Your task to perform on an android device: Open the calendar app, open the side menu, and click the "Day" option Image 0: 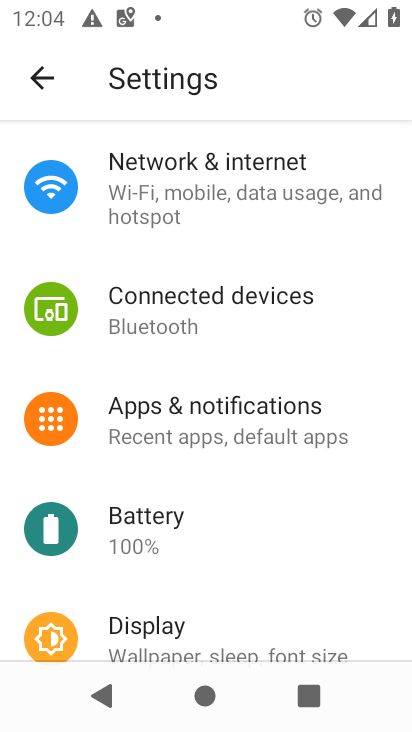
Step 0: press back button
Your task to perform on an android device: Open the calendar app, open the side menu, and click the "Day" option Image 1: 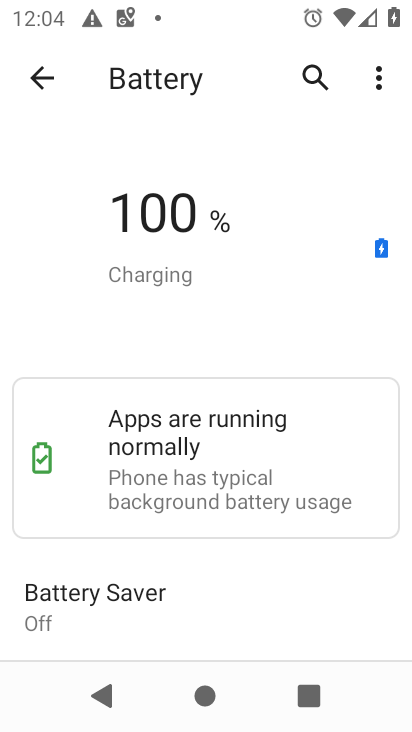
Step 1: press back button
Your task to perform on an android device: Open the calendar app, open the side menu, and click the "Day" option Image 2: 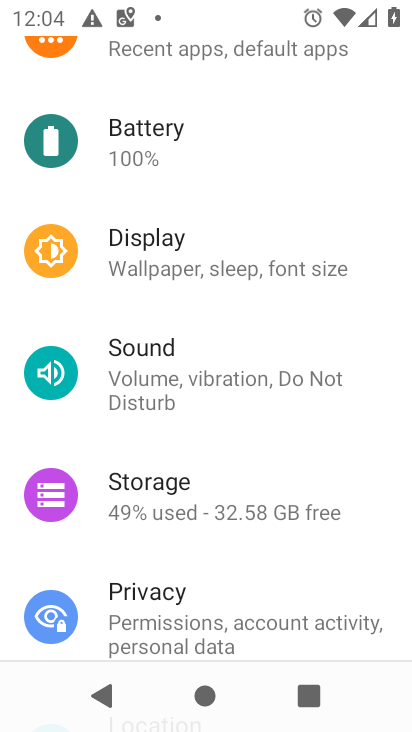
Step 2: press back button
Your task to perform on an android device: Open the calendar app, open the side menu, and click the "Day" option Image 3: 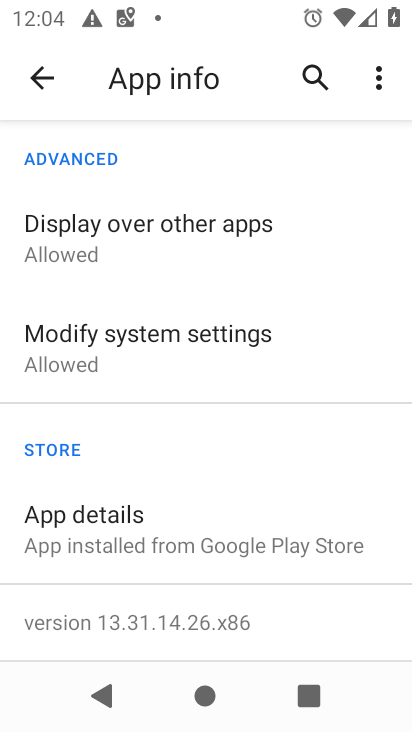
Step 3: press back button
Your task to perform on an android device: Open the calendar app, open the side menu, and click the "Day" option Image 4: 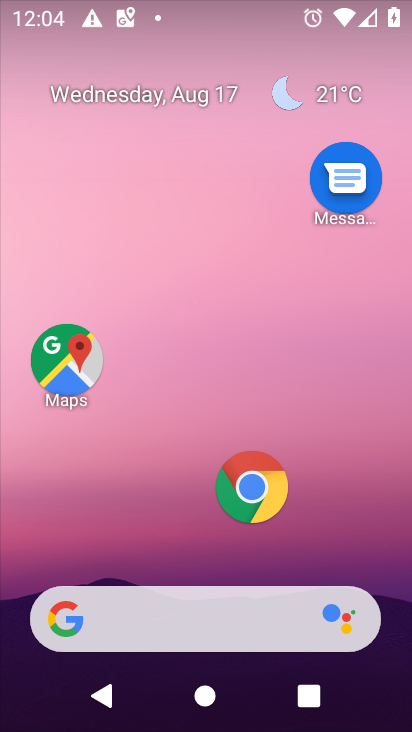
Step 4: drag from (163, 537) to (188, 79)
Your task to perform on an android device: Open the calendar app, open the side menu, and click the "Day" option Image 5: 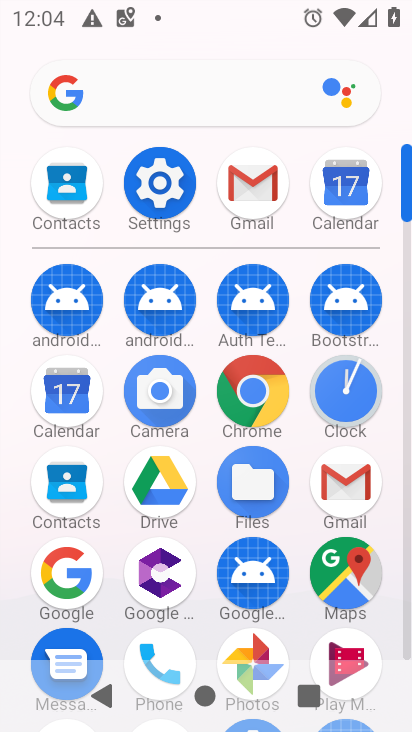
Step 5: click (66, 423)
Your task to perform on an android device: Open the calendar app, open the side menu, and click the "Day" option Image 6: 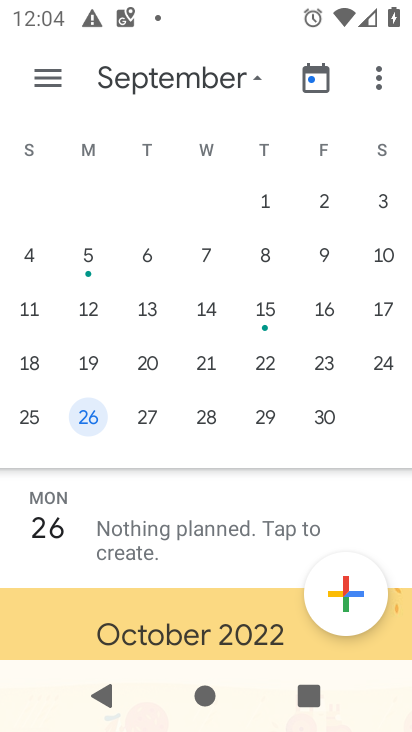
Step 6: click (43, 73)
Your task to perform on an android device: Open the calendar app, open the side menu, and click the "Day" option Image 7: 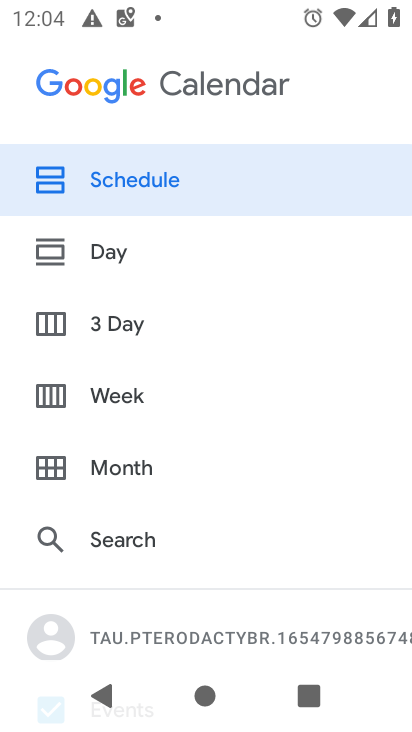
Step 7: click (122, 240)
Your task to perform on an android device: Open the calendar app, open the side menu, and click the "Day" option Image 8: 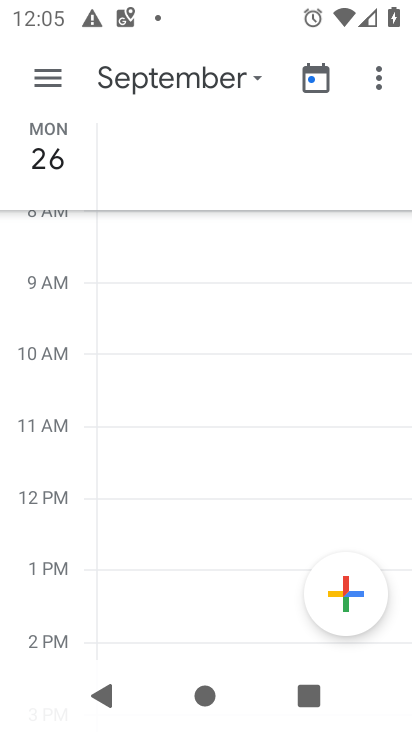
Step 8: task complete